Your task to perform on an android device: Go to CNN.com Image 0: 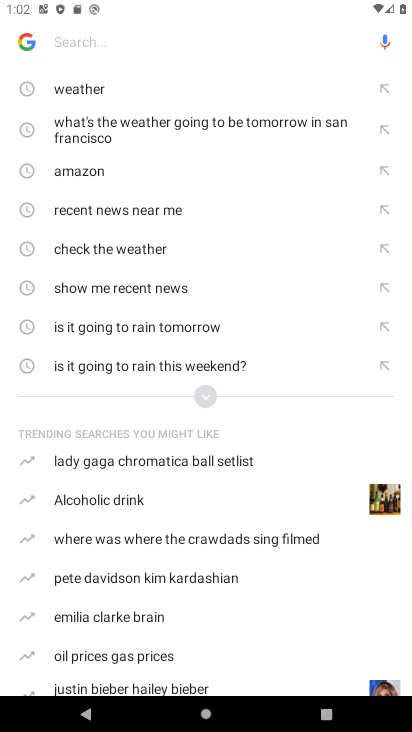
Step 0: press home button
Your task to perform on an android device: Go to CNN.com Image 1: 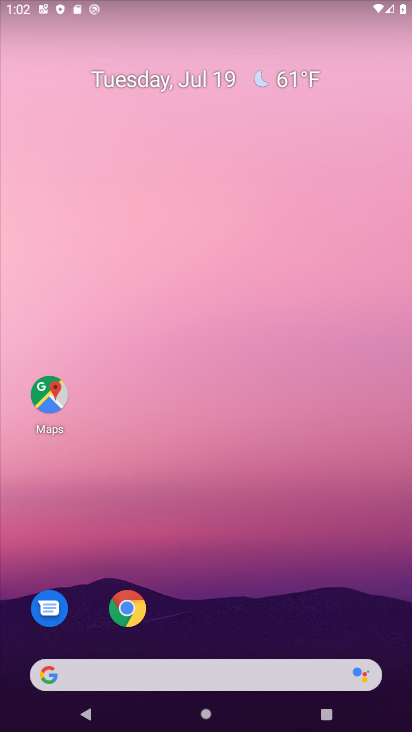
Step 1: drag from (223, 591) to (201, 0)
Your task to perform on an android device: Go to CNN.com Image 2: 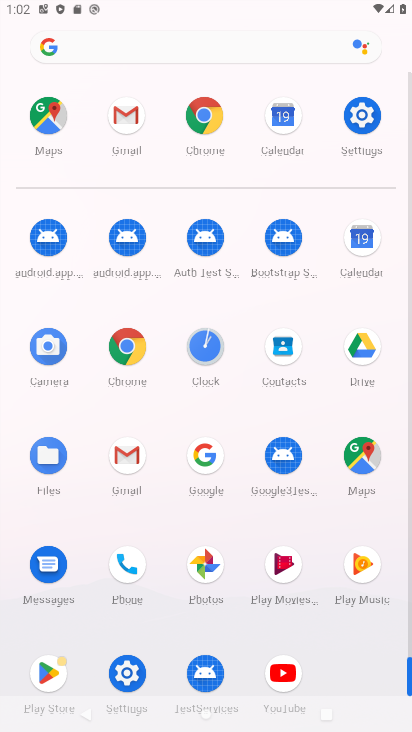
Step 2: click (184, 114)
Your task to perform on an android device: Go to CNN.com Image 3: 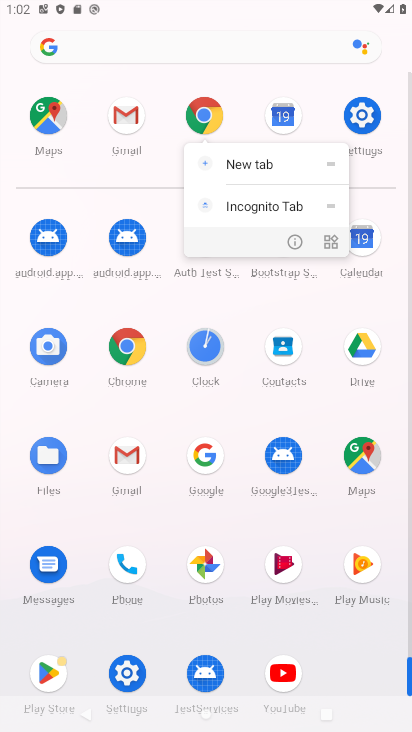
Step 3: click (198, 113)
Your task to perform on an android device: Go to CNN.com Image 4: 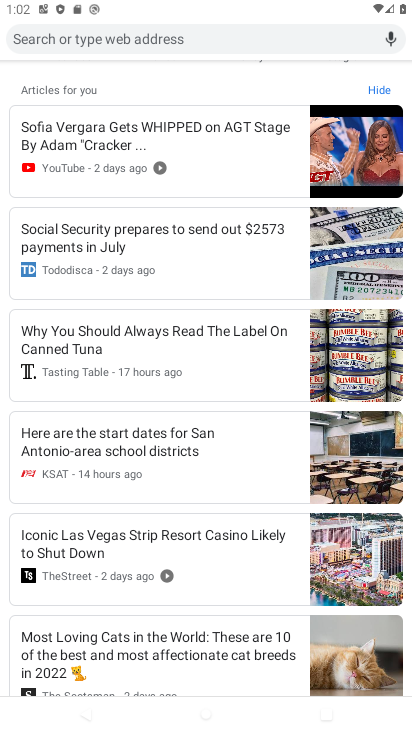
Step 4: drag from (205, 158) to (316, 708)
Your task to perform on an android device: Go to CNN.com Image 5: 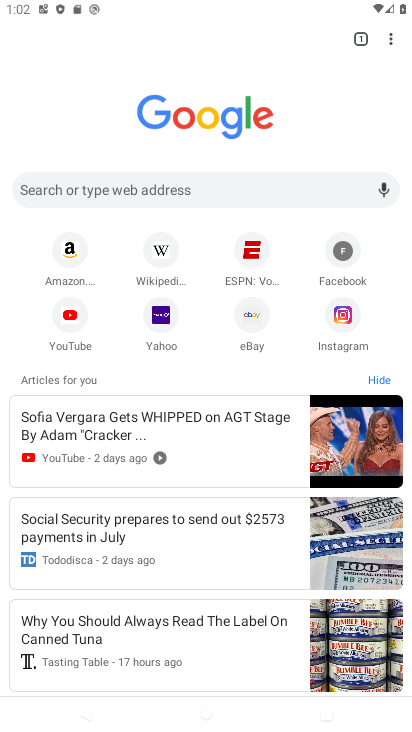
Step 5: click (140, 192)
Your task to perform on an android device: Go to CNN.com Image 6: 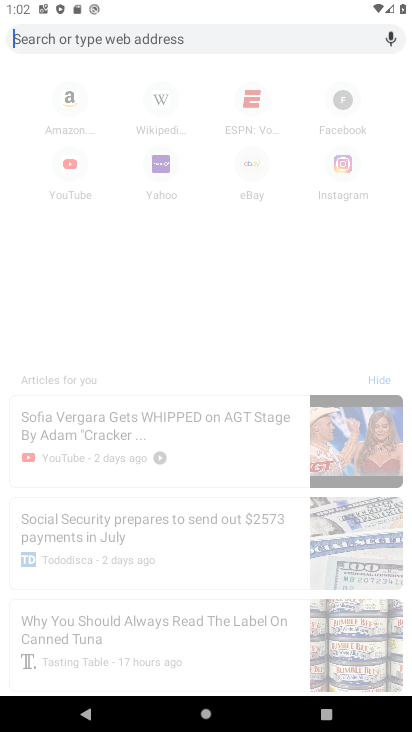
Step 6: type " CNN.com"
Your task to perform on an android device: Go to CNN.com Image 7: 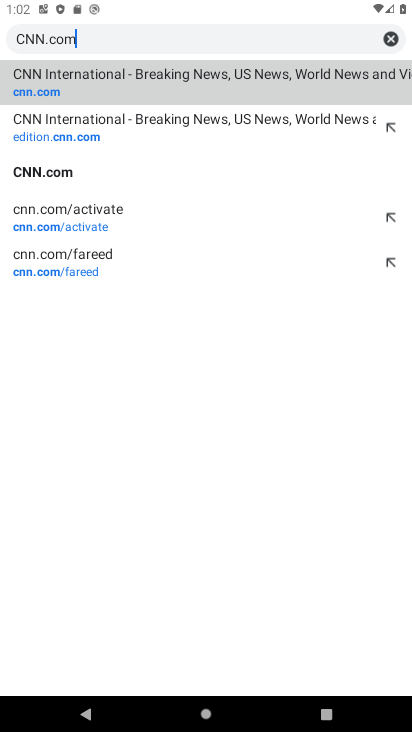
Step 7: press enter
Your task to perform on an android device: Go to CNN.com Image 8: 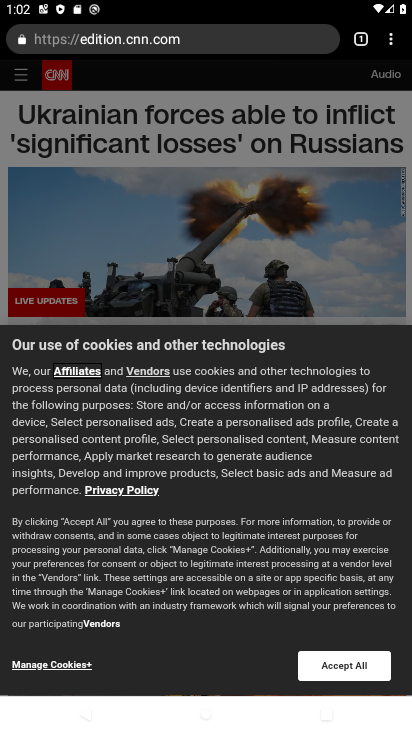
Step 8: task complete